Your task to perform on an android device: see creations saved in the google photos Image 0: 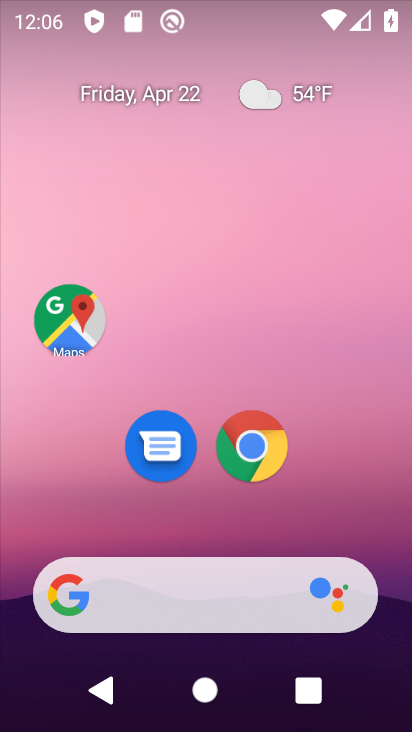
Step 0: drag from (367, 469) to (298, 171)
Your task to perform on an android device: see creations saved in the google photos Image 1: 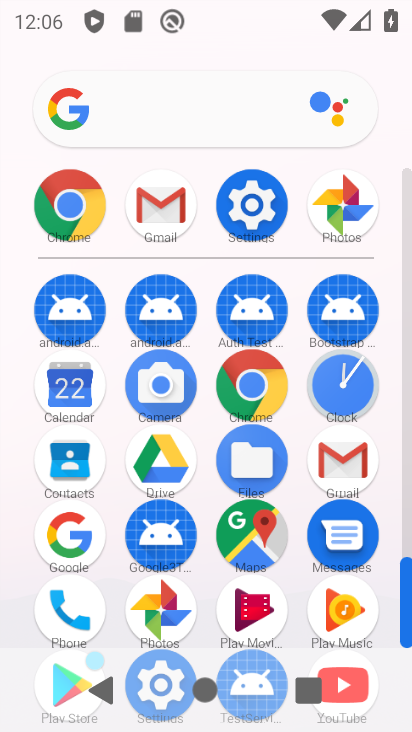
Step 1: click (155, 613)
Your task to perform on an android device: see creations saved in the google photos Image 2: 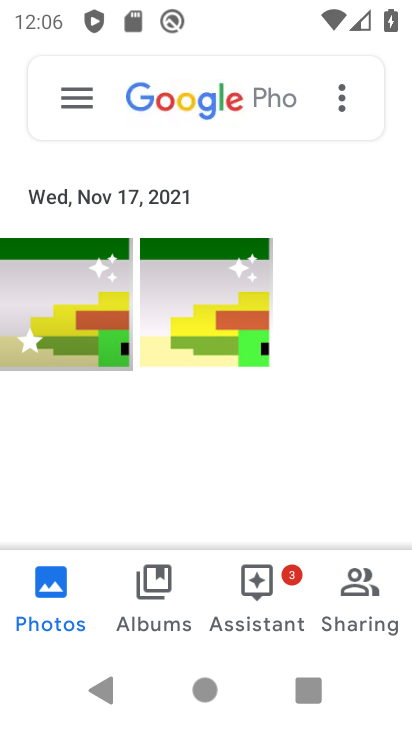
Step 2: click (170, 83)
Your task to perform on an android device: see creations saved in the google photos Image 3: 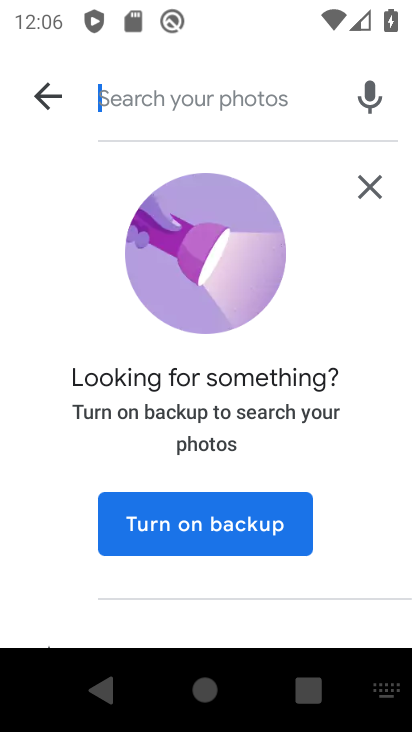
Step 3: click (277, 517)
Your task to perform on an android device: see creations saved in the google photos Image 4: 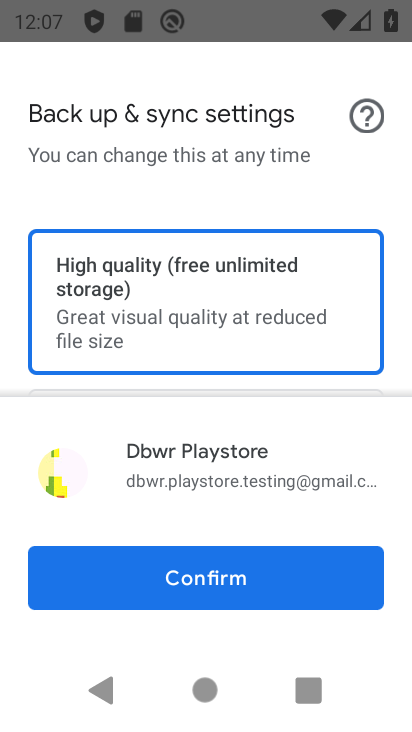
Step 4: click (287, 561)
Your task to perform on an android device: see creations saved in the google photos Image 5: 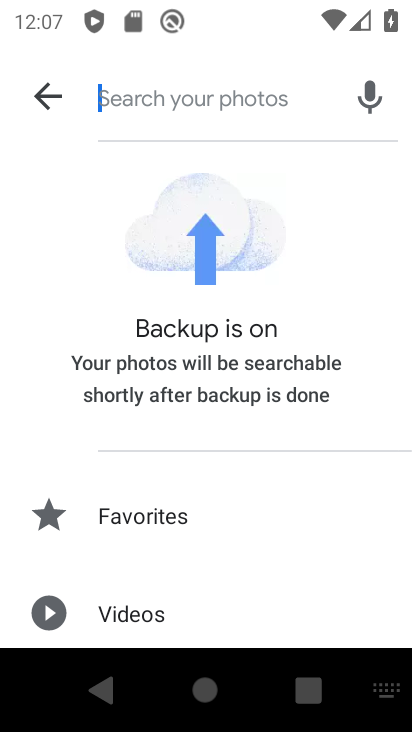
Step 5: drag from (287, 561) to (215, 135)
Your task to perform on an android device: see creations saved in the google photos Image 6: 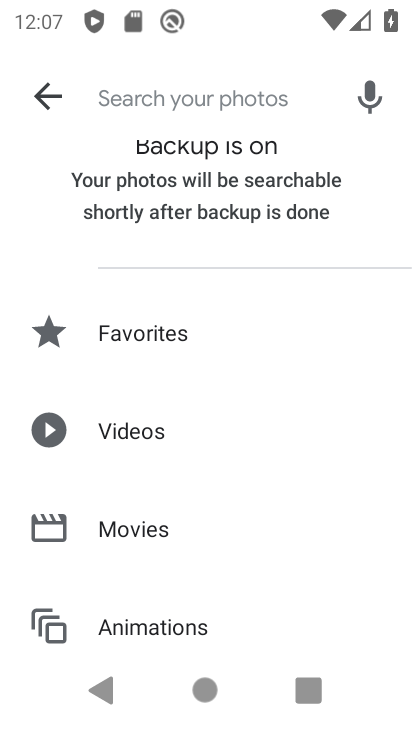
Step 6: drag from (225, 644) to (228, 339)
Your task to perform on an android device: see creations saved in the google photos Image 7: 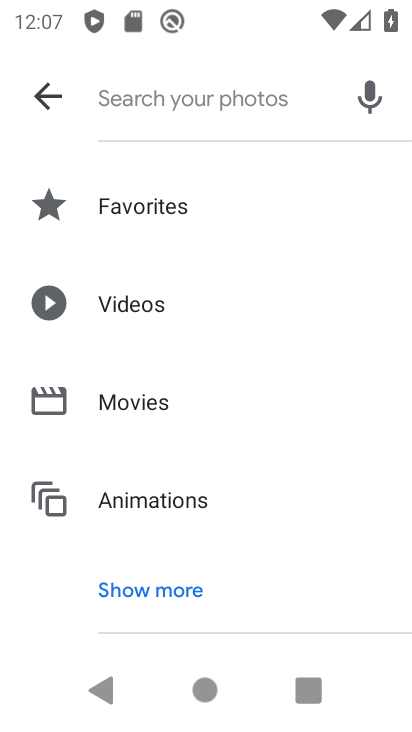
Step 7: click (157, 579)
Your task to perform on an android device: see creations saved in the google photos Image 8: 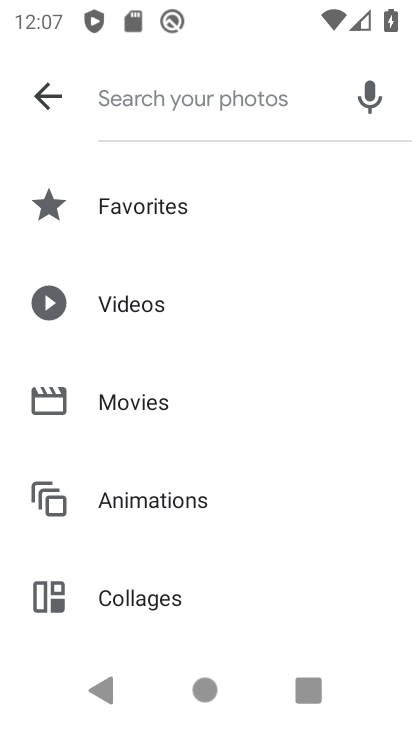
Step 8: drag from (157, 579) to (190, 278)
Your task to perform on an android device: see creations saved in the google photos Image 9: 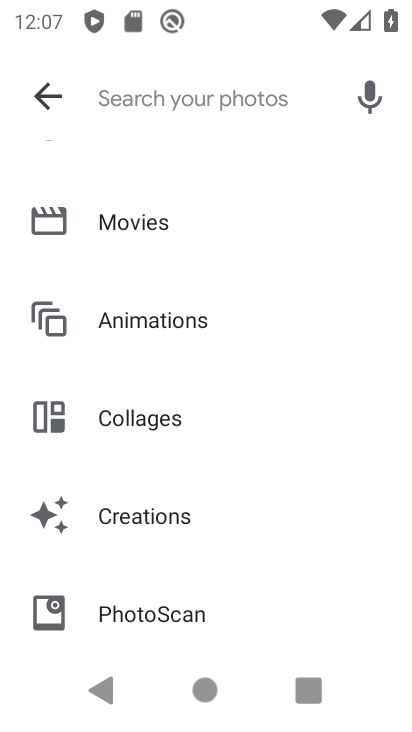
Step 9: click (168, 527)
Your task to perform on an android device: see creations saved in the google photos Image 10: 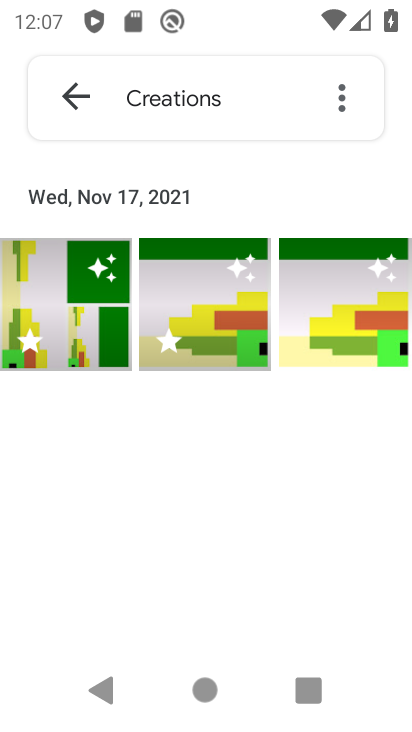
Step 10: task complete